Your task to perform on an android device: check google app version Image 0: 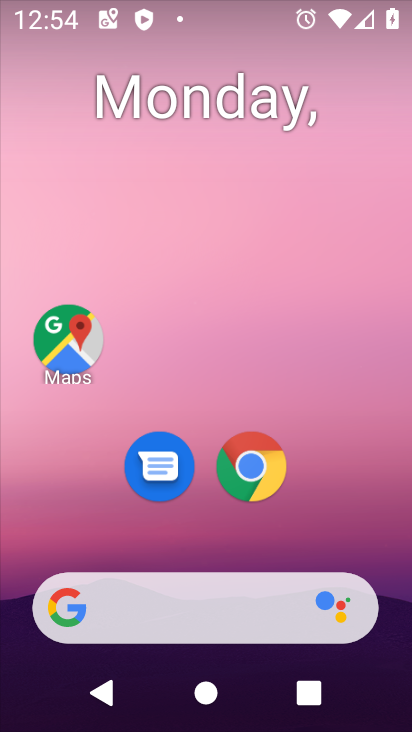
Step 0: drag from (391, 631) to (341, 105)
Your task to perform on an android device: check google app version Image 1: 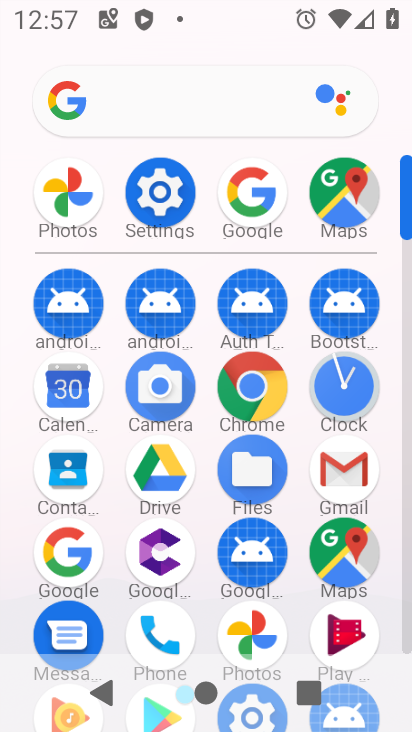
Step 1: click (56, 549)
Your task to perform on an android device: check google app version Image 2: 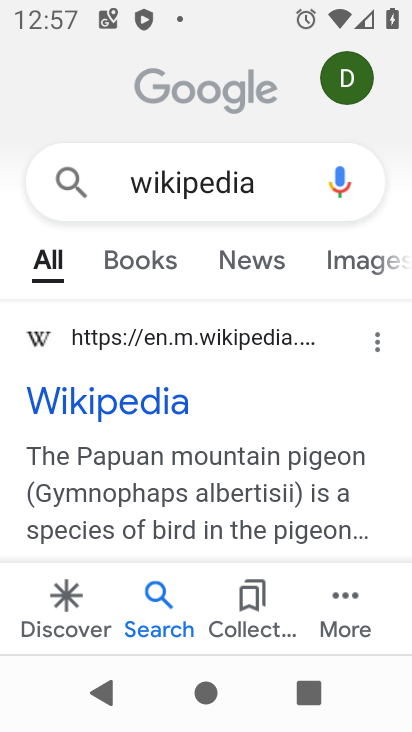
Step 2: press back button
Your task to perform on an android device: check google app version Image 3: 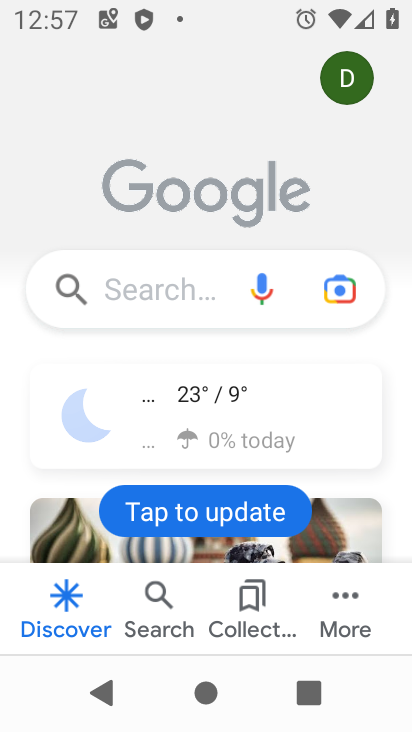
Step 3: press back button
Your task to perform on an android device: check google app version Image 4: 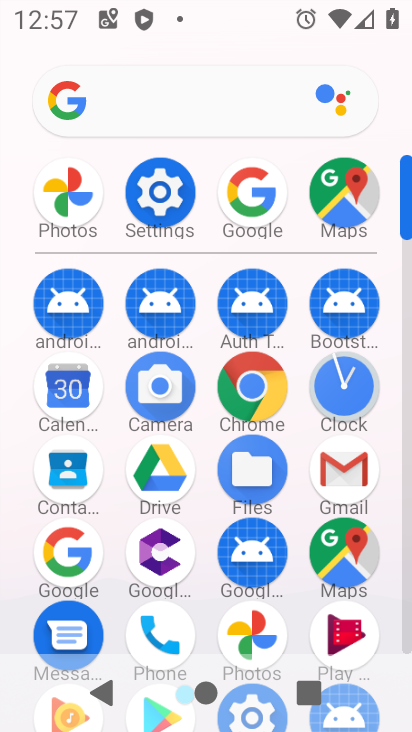
Step 4: click (85, 547)
Your task to perform on an android device: check google app version Image 5: 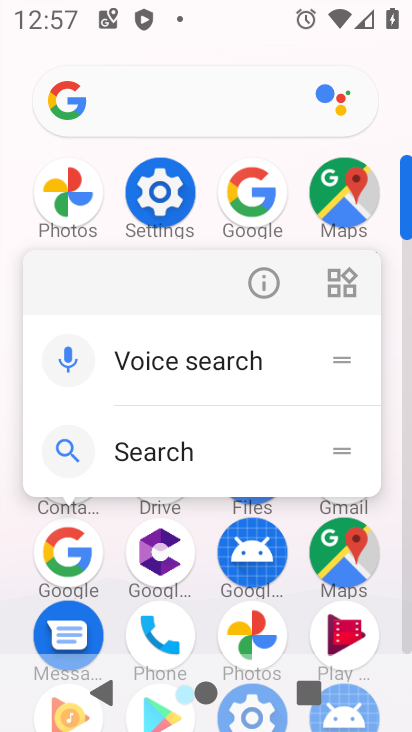
Step 5: click (264, 289)
Your task to perform on an android device: check google app version Image 6: 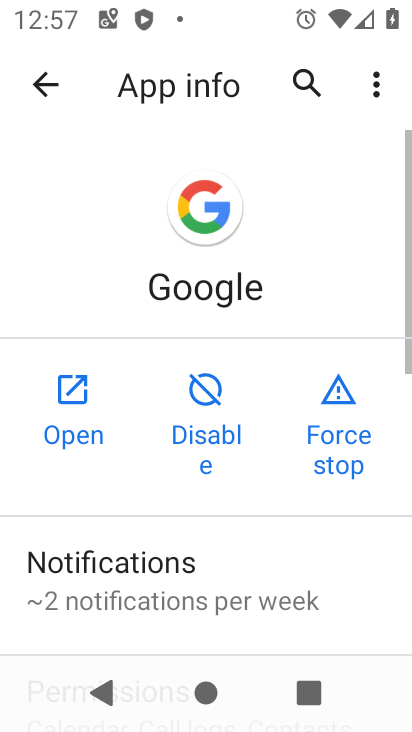
Step 6: drag from (131, 587) to (219, 83)
Your task to perform on an android device: check google app version Image 7: 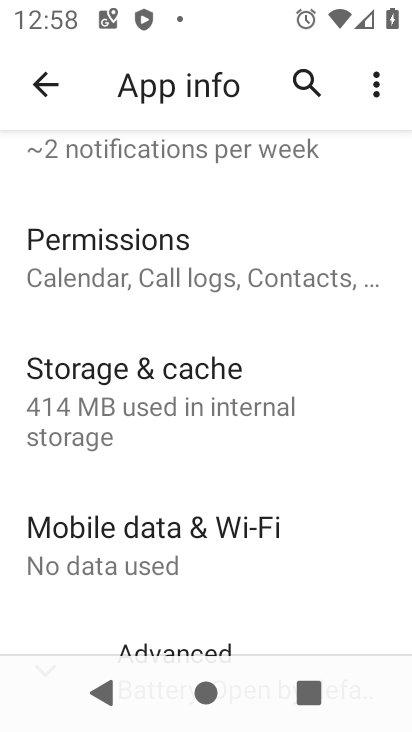
Step 7: drag from (200, 603) to (178, 103)
Your task to perform on an android device: check google app version Image 8: 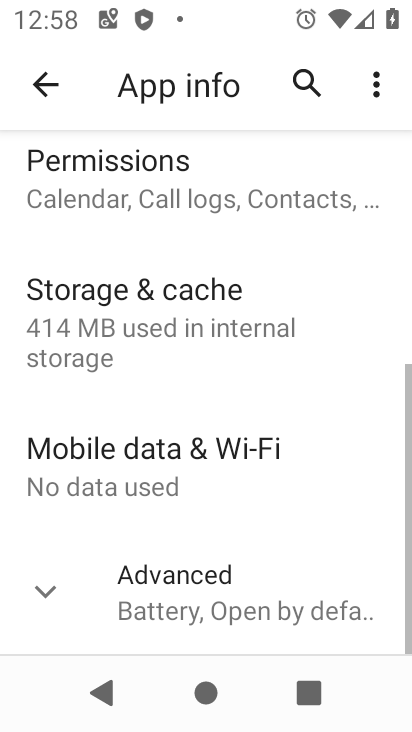
Step 8: drag from (56, 583) to (229, 68)
Your task to perform on an android device: check google app version Image 9: 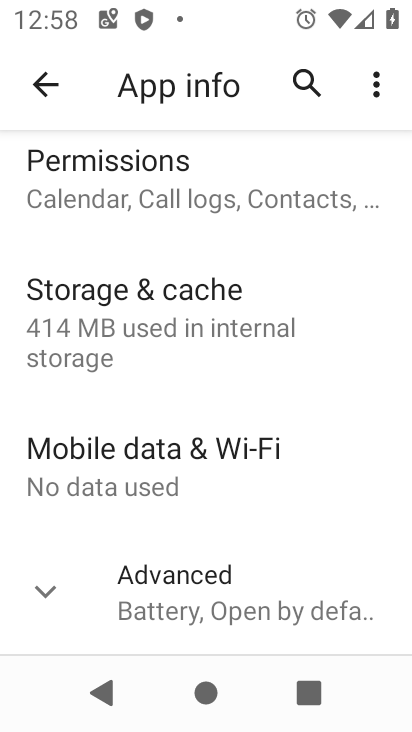
Step 9: click (65, 603)
Your task to perform on an android device: check google app version Image 10: 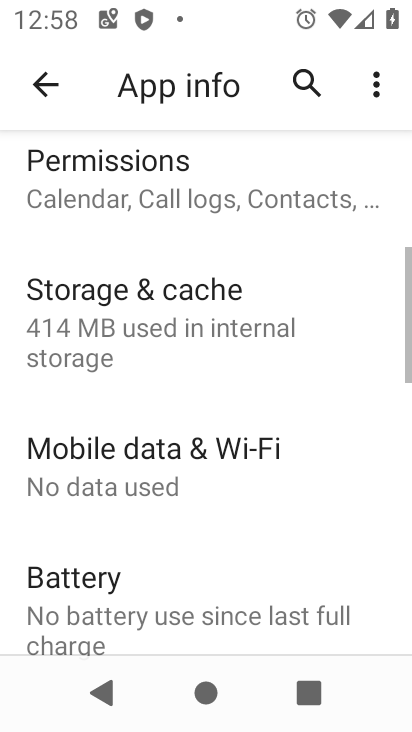
Step 10: task complete